Your task to perform on an android device: Search for pizza restaurants on Maps Image 0: 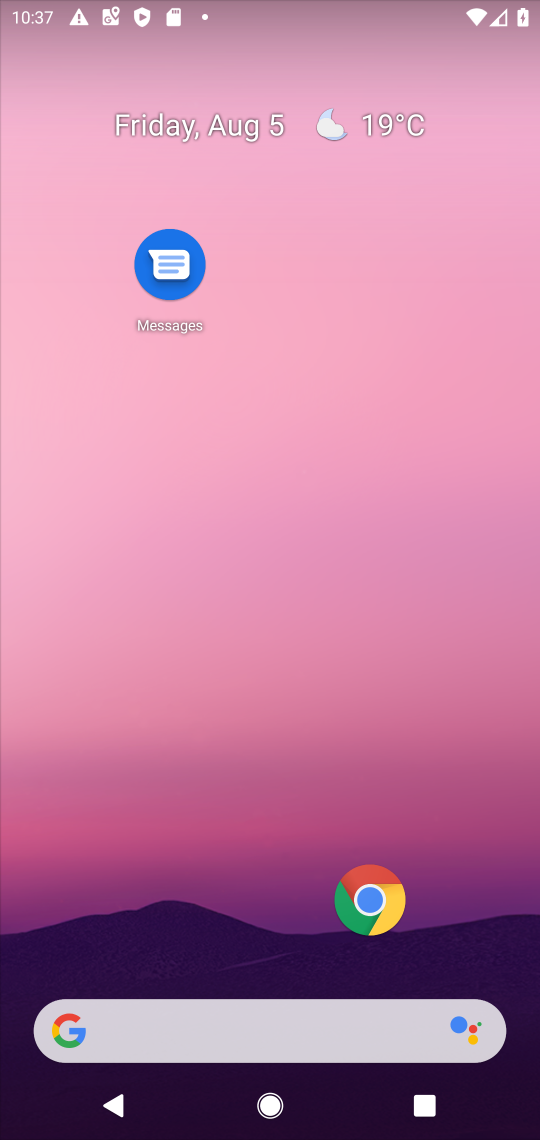
Step 0: press home button
Your task to perform on an android device: Search for pizza restaurants on Maps Image 1: 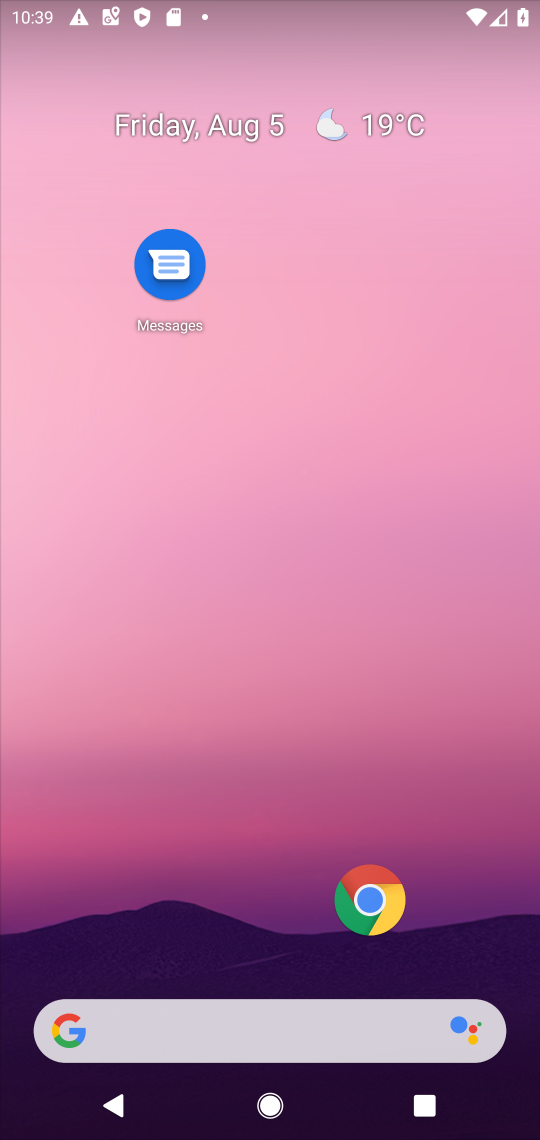
Step 1: drag from (96, 962) to (228, 182)
Your task to perform on an android device: Search for pizza restaurants on Maps Image 2: 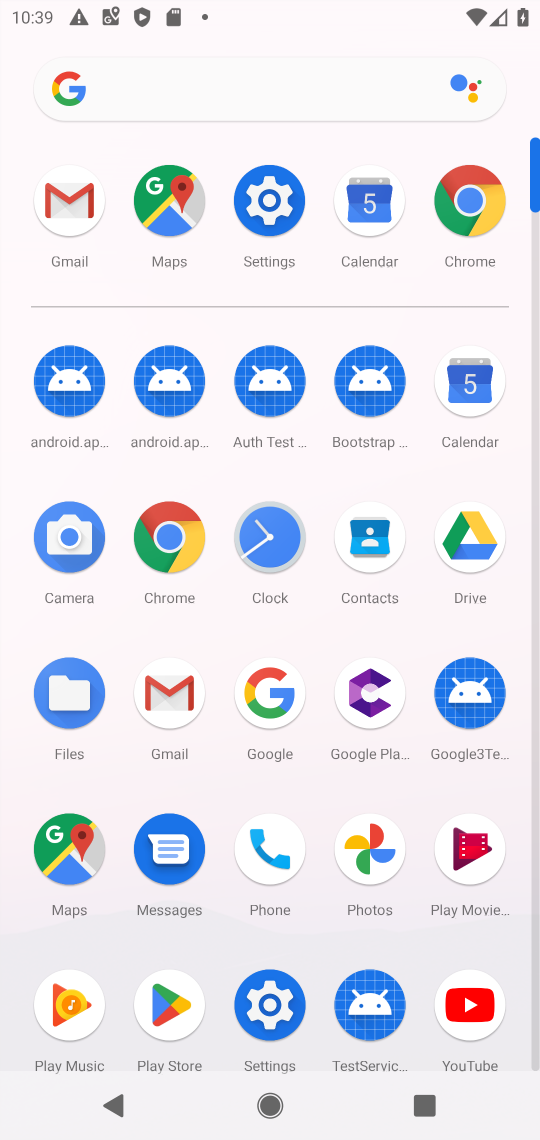
Step 2: click (157, 233)
Your task to perform on an android device: Search for pizza restaurants on Maps Image 3: 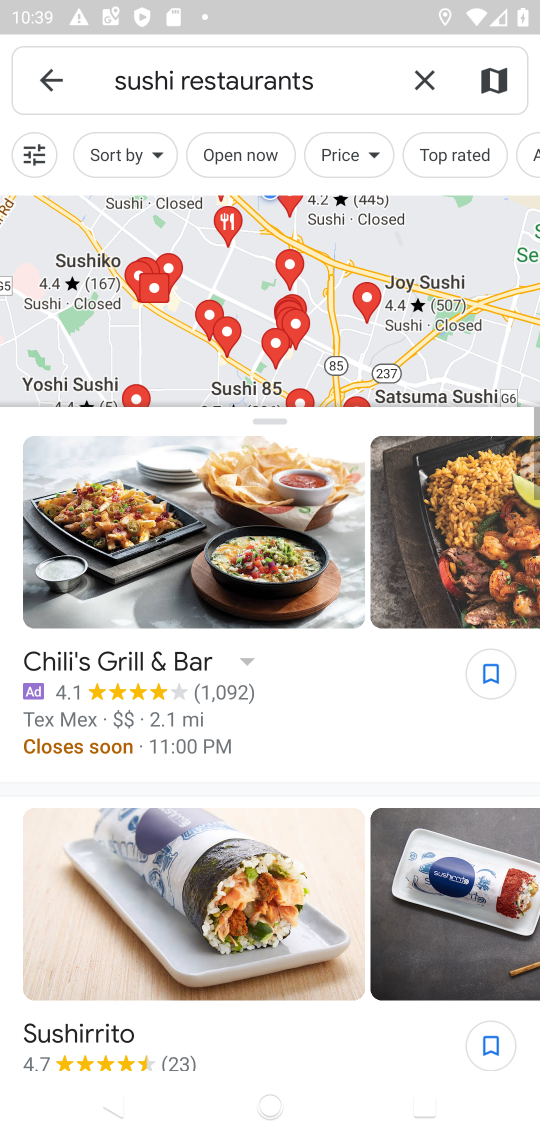
Step 3: click (416, 78)
Your task to perform on an android device: Search for pizza restaurants on Maps Image 4: 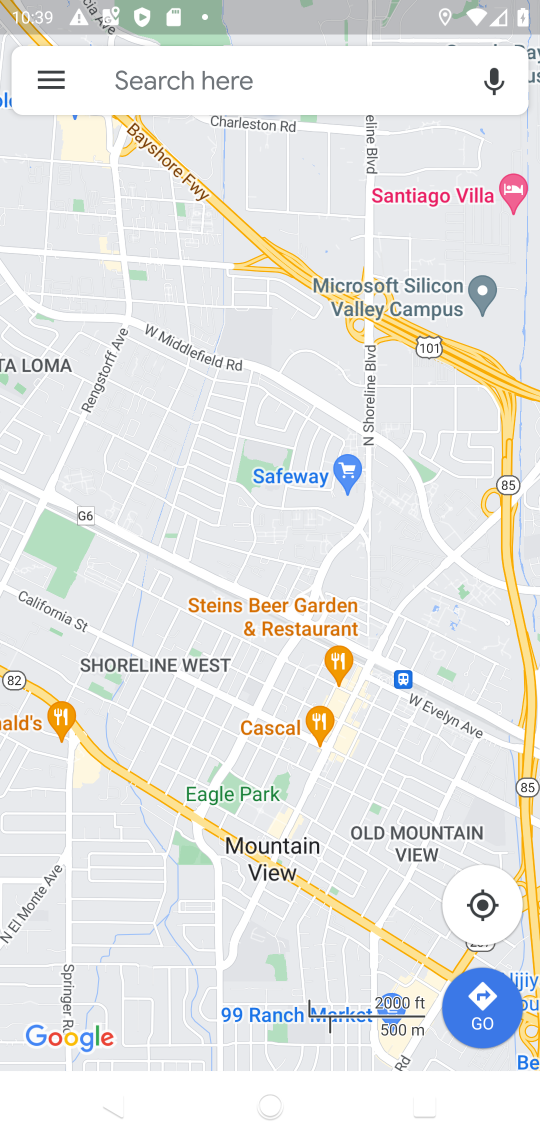
Step 4: click (190, 89)
Your task to perform on an android device: Search for pizza restaurants on Maps Image 5: 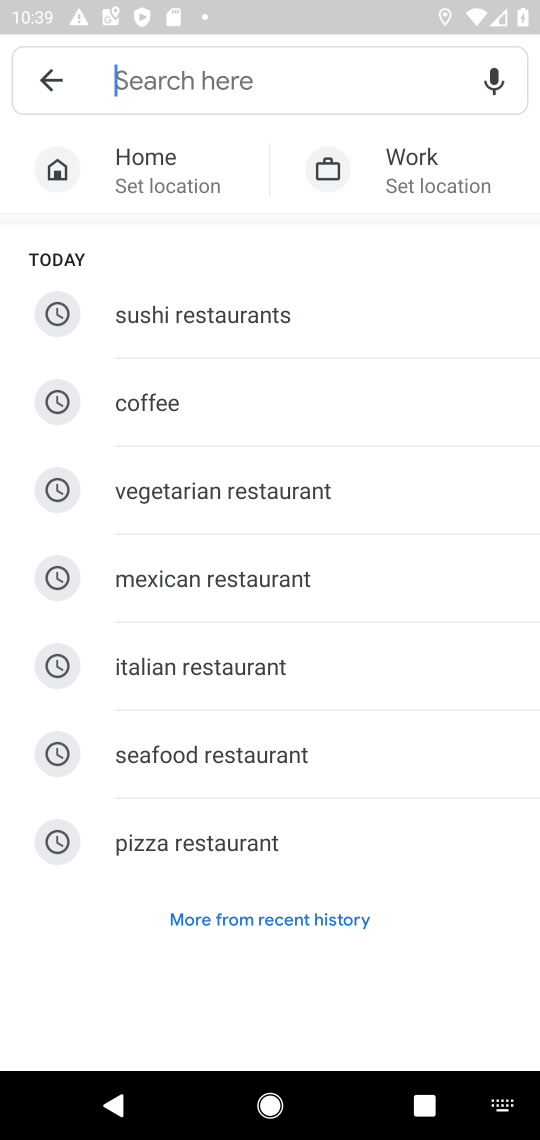
Step 5: type "pizza restaurants "
Your task to perform on an android device: Search for pizza restaurants on Maps Image 6: 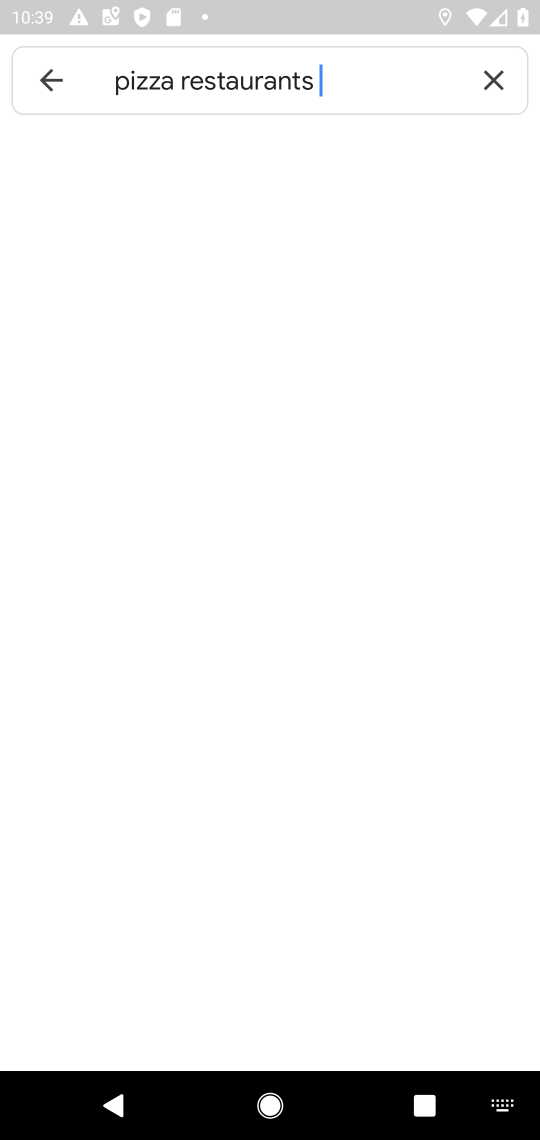
Step 6: type ""
Your task to perform on an android device: Search for pizza restaurants on Maps Image 7: 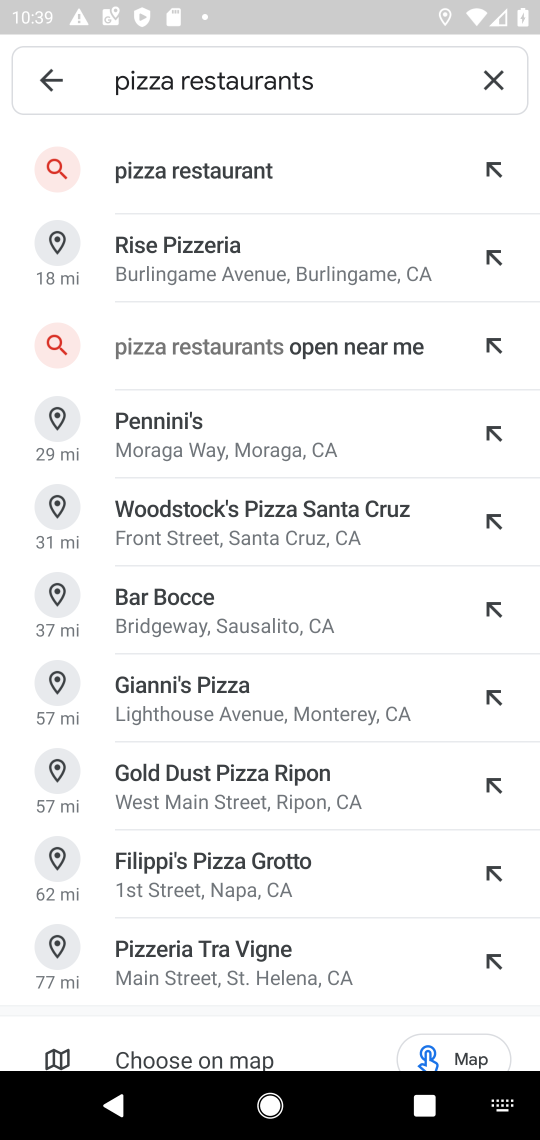
Step 7: click (281, 170)
Your task to perform on an android device: Search for pizza restaurants on Maps Image 8: 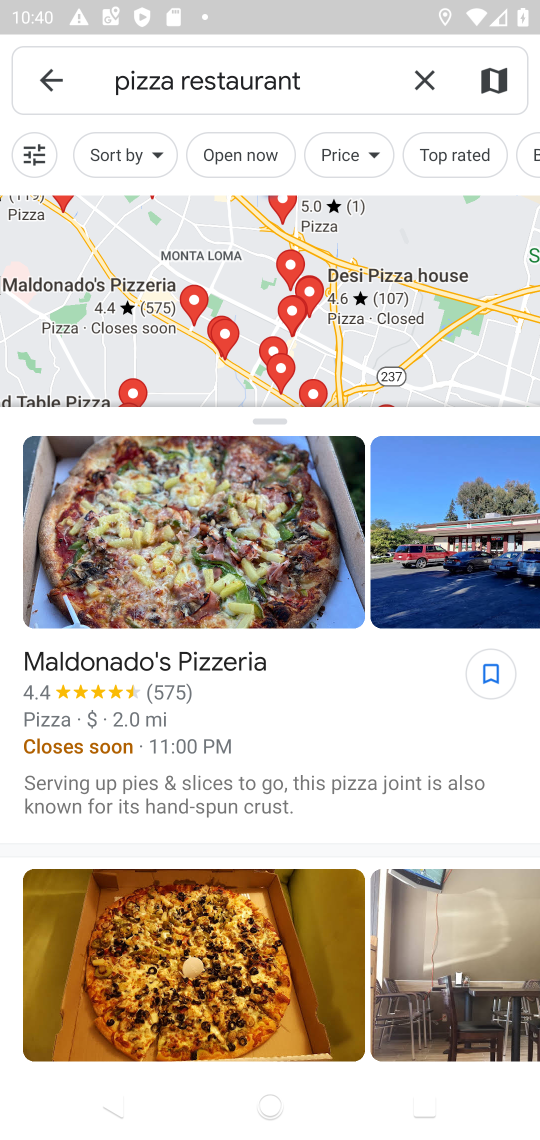
Step 8: task complete